Your task to perform on an android device: Open notification settings Image 0: 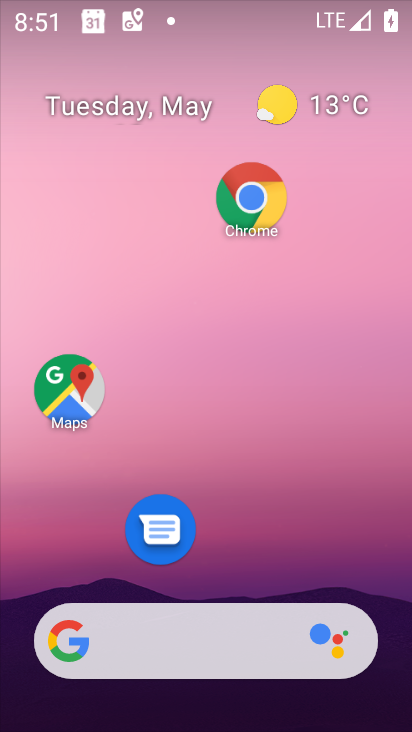
Step 0: drag from (364, 553) to (305, 75)
Your task to perform on an android device: Open notification settings Image 1: 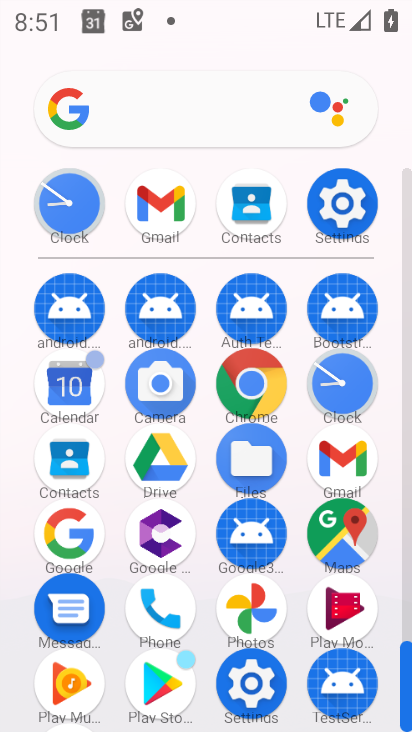
Step 1: click (347, 184)
Your task to perform on an android device: Open notification settings Image 2: 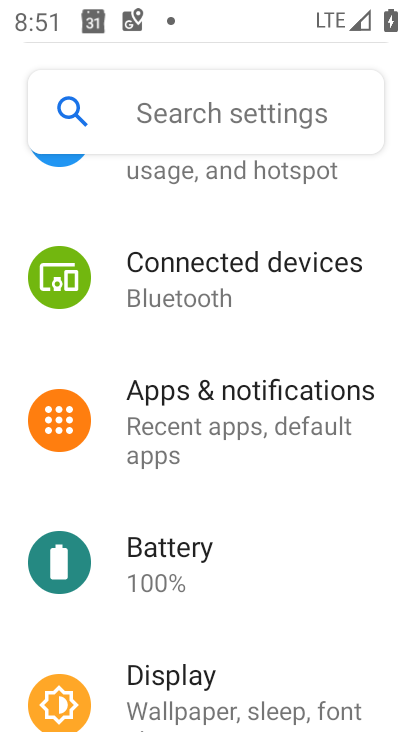
Step 2: click (231, 394)
Your task to perform on an android device: Open notification settings Image 3: 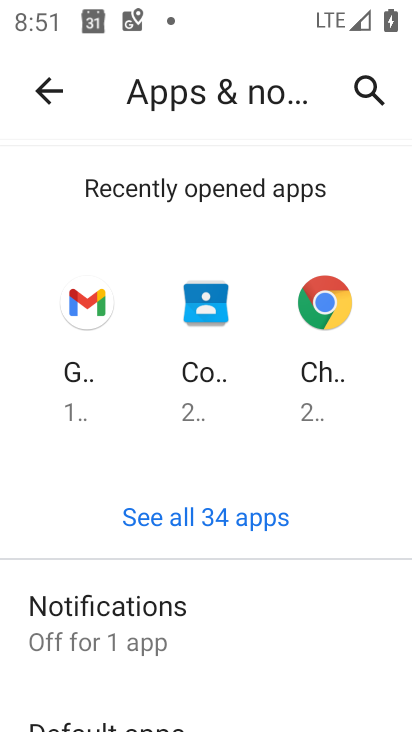
Step 3: click (184, 594)
Your task to perform on an android device: Open notification settings Image 4: 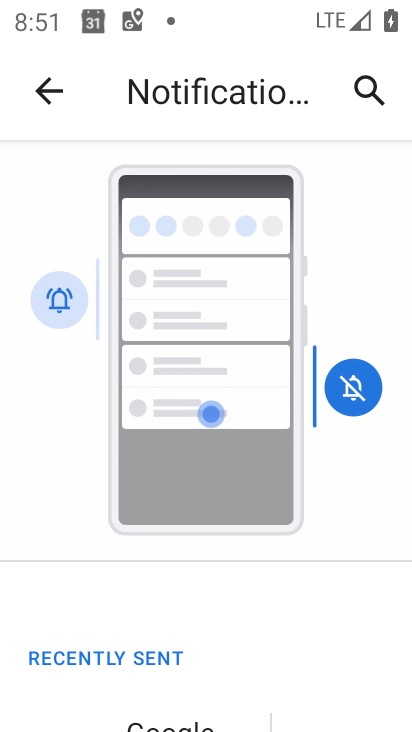
Step 4: task complete